Your task to perform on an android device: When is my next appointment? Image 0: 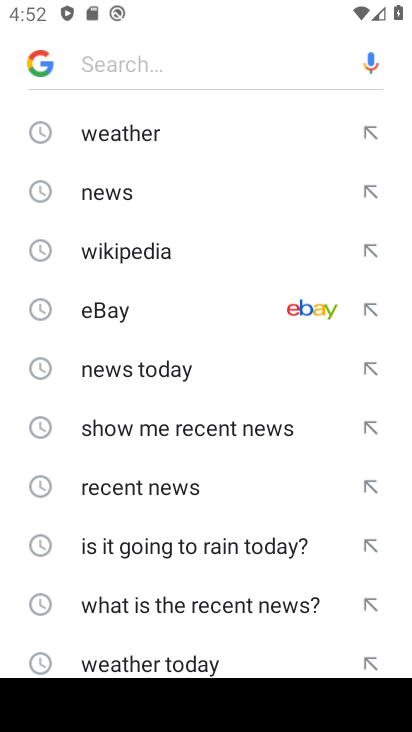
Step 0: press back button
Your task to perform on an android device: When is my next appointment? Image 1: 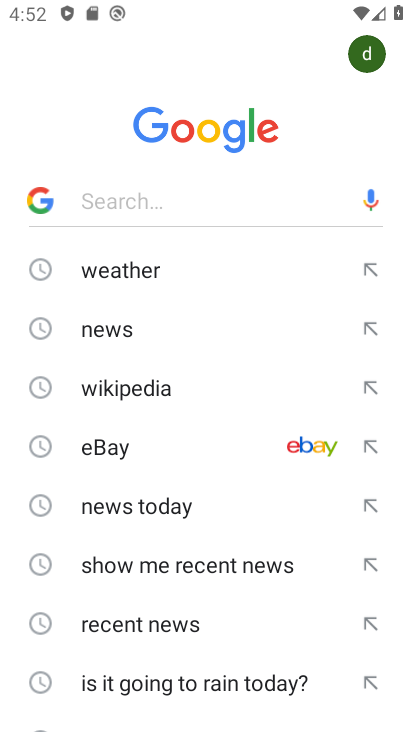
Step 1: press back button
Your task to perform on an android device: When is my next appointment? Image 2: 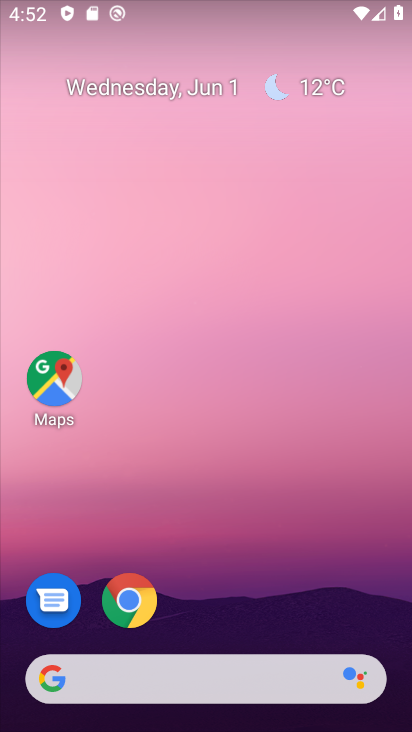
Step 2: drag from (255, 606) to (230, 88)
Your task to perform on an android device: When is my next appointment? Image 3: 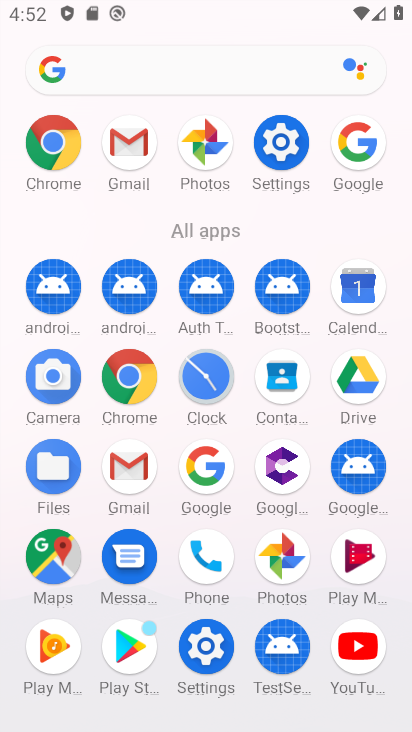
Step 3: click (362, 286)
Your task to perform on an android device: When is my next appointment? Image 4: 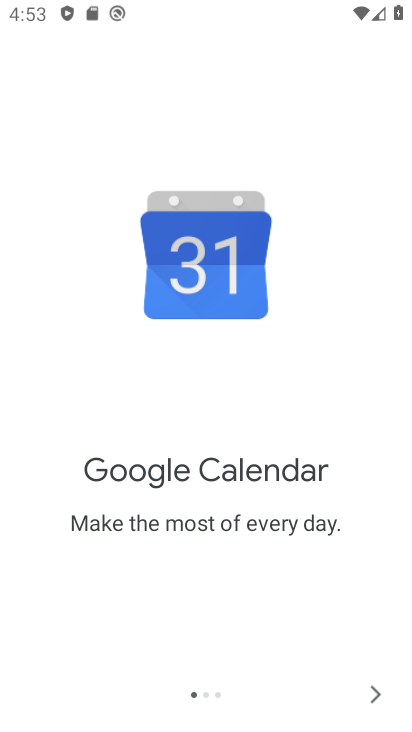
Step 4: click (376, 691)
Your task to perform on an android device: When is my next appointment? Image 5: 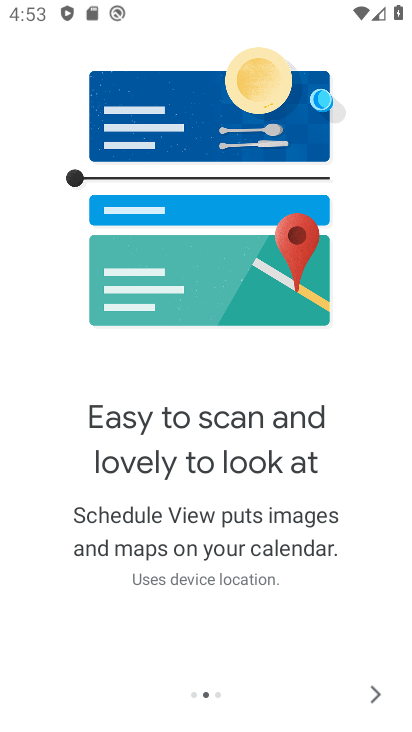
Step 5: click (376, 691)
Your task to perform on an android device: When is my next appointment? Image 6: 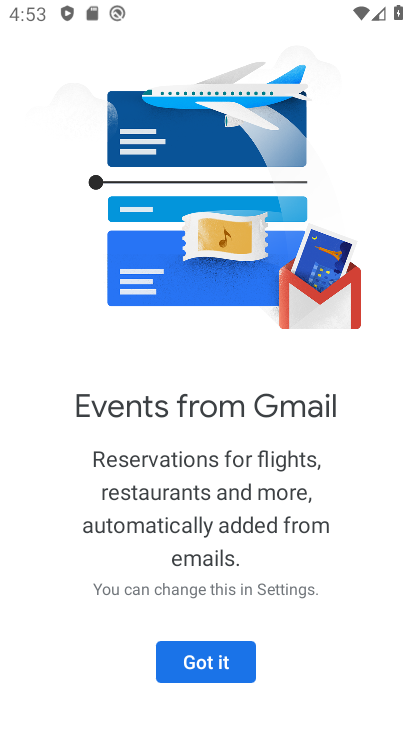
Step 6: click (223, 662)
Your task to perform on an android device: When is my next appointment? Image 7: 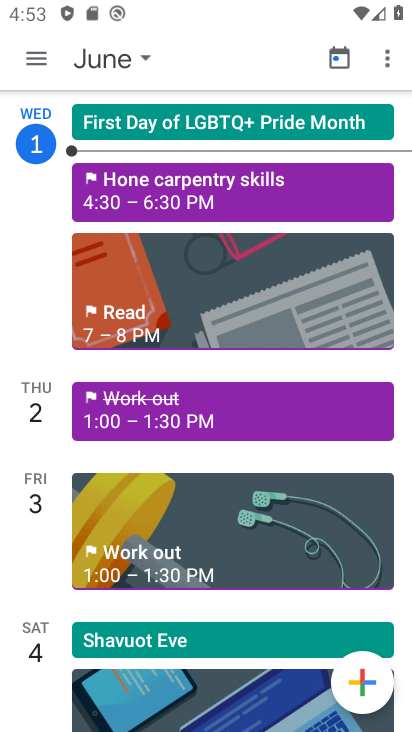
Step 7: click (145, 56)
Your task to perform on an android device: When is my next appointment? Image 8: 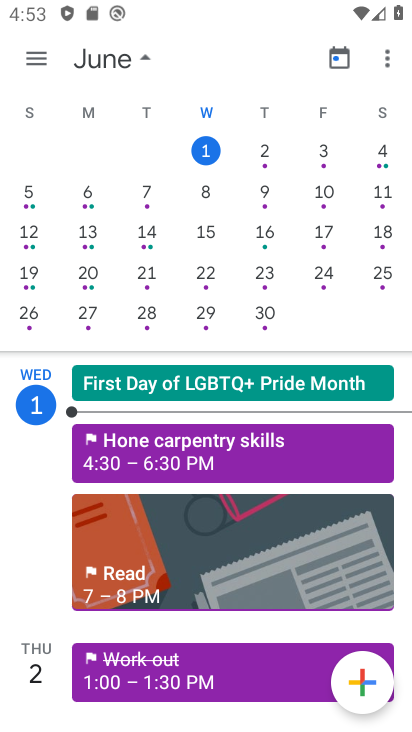
Step 8: click (273, 158)
Your task to perform on an android device: When is my next appointment? Image 9: 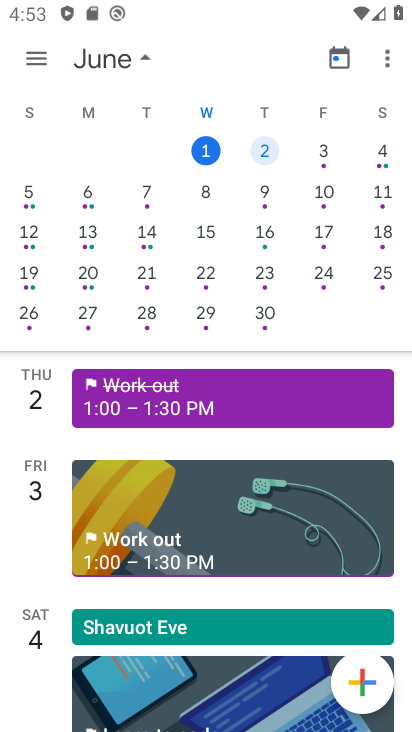
Step 9: click (52, 50)
Your task to perform on an android device: When is my next appointment? Image 10: 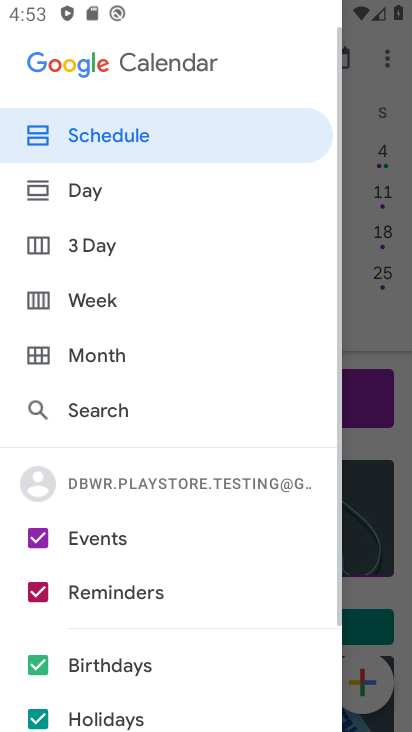
Step 10: click (97, 143)
Your task to perform on an android device: When is my next appointment? Image 11: 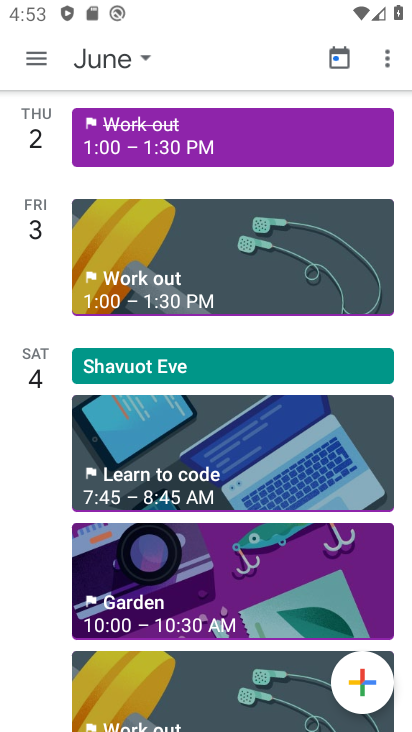
Step 11: task complete